Your task to perform on an android device: turn pop-ups off in chrome Image 0: 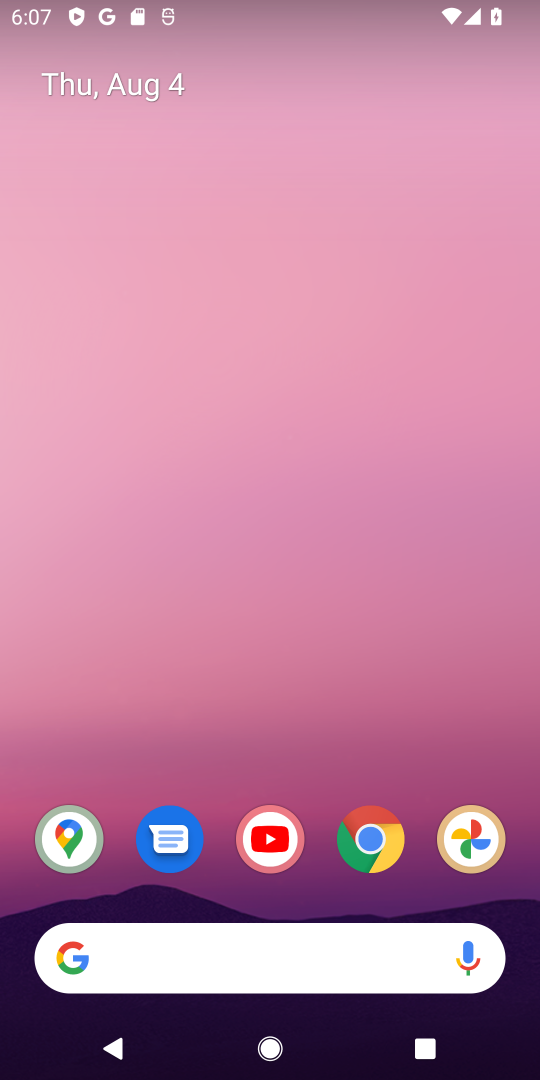
Step 0: drag from (337, 730) to (412, 98)
Your task to perform on an android device: turn pop-ups off in chrome Image 1: 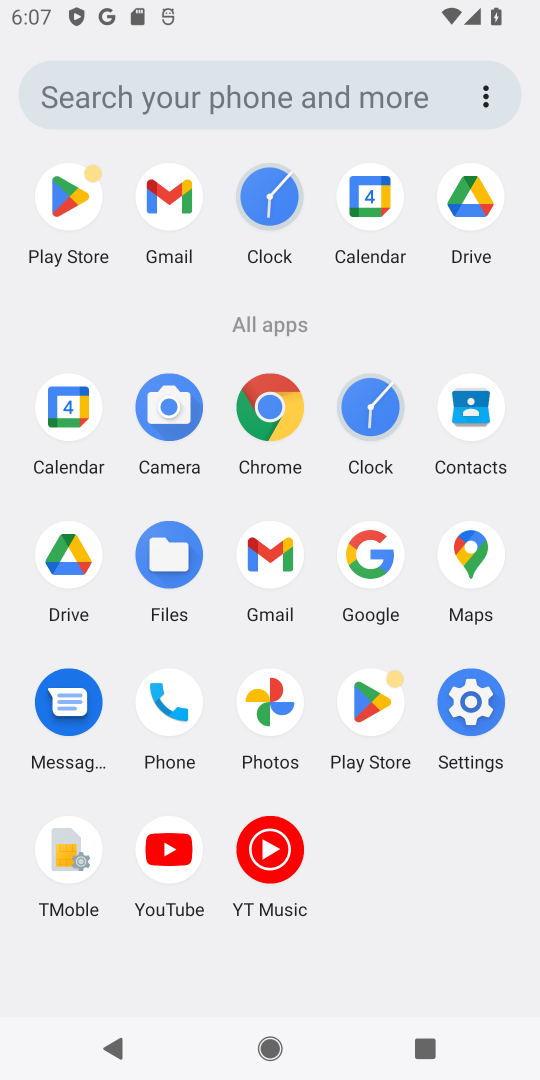
Step 1: click (261, 395)
Your task to perform on an android device: turn pop-ups off in chrome Image 2: 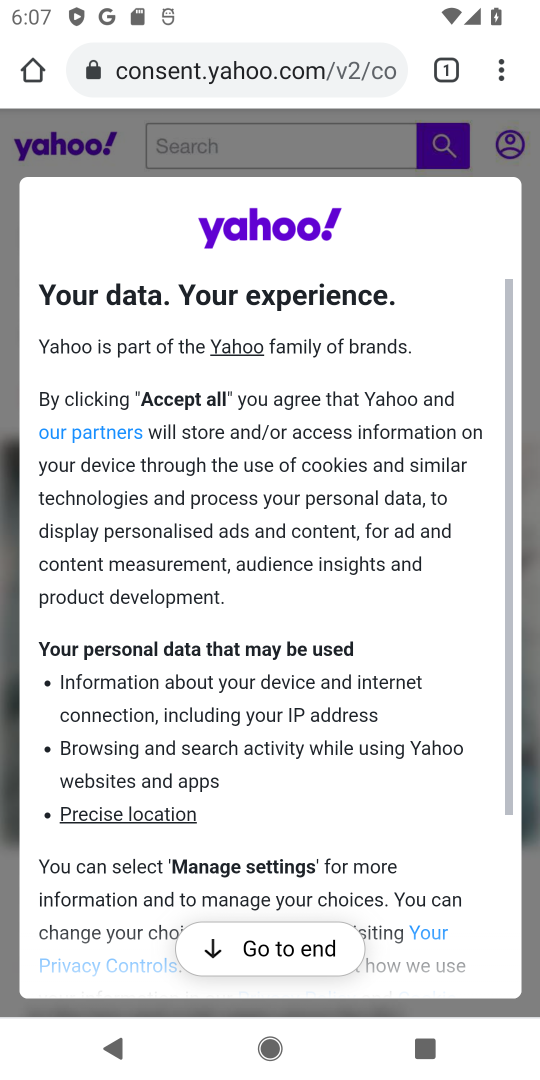
Step 2: drag from (501, 67) to (282, 905)
Your task to perform on an android device: turn pop-ups off in chrome Image 3: 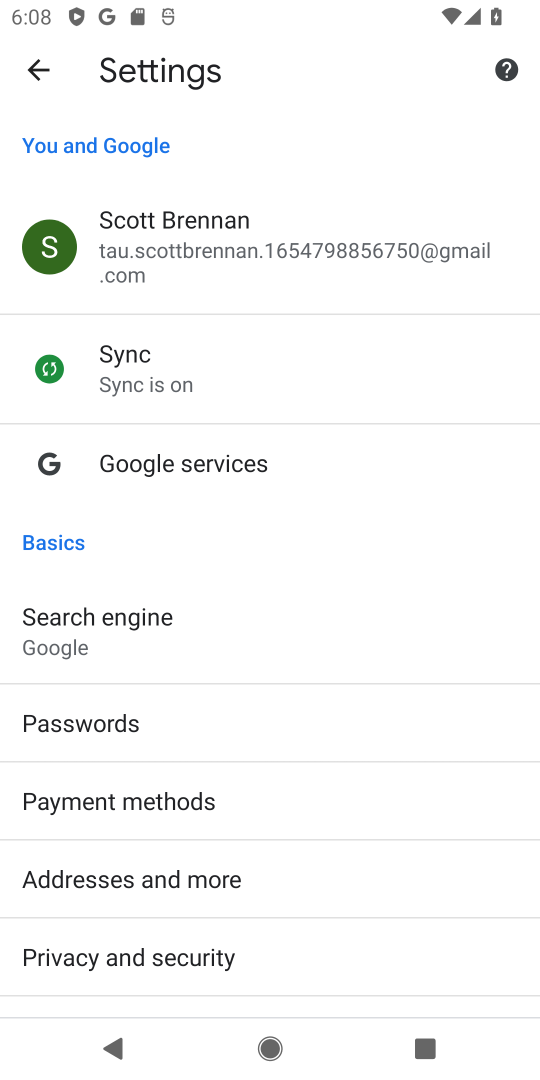
Step 3: drag from (268, 831) to (456, 147)
Your task to perform on an android device: turn pop-ups off in chrome Image 4: 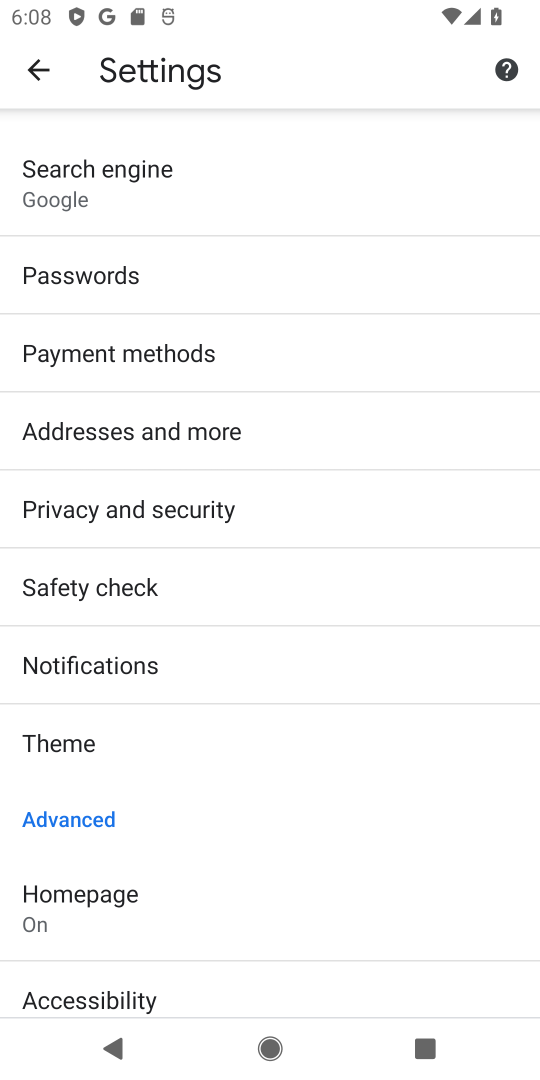
Step 4: drag from (300, 886) to (397, 321)
Your task to perform on an android device: turn pop-ups off in chrome Image 5: 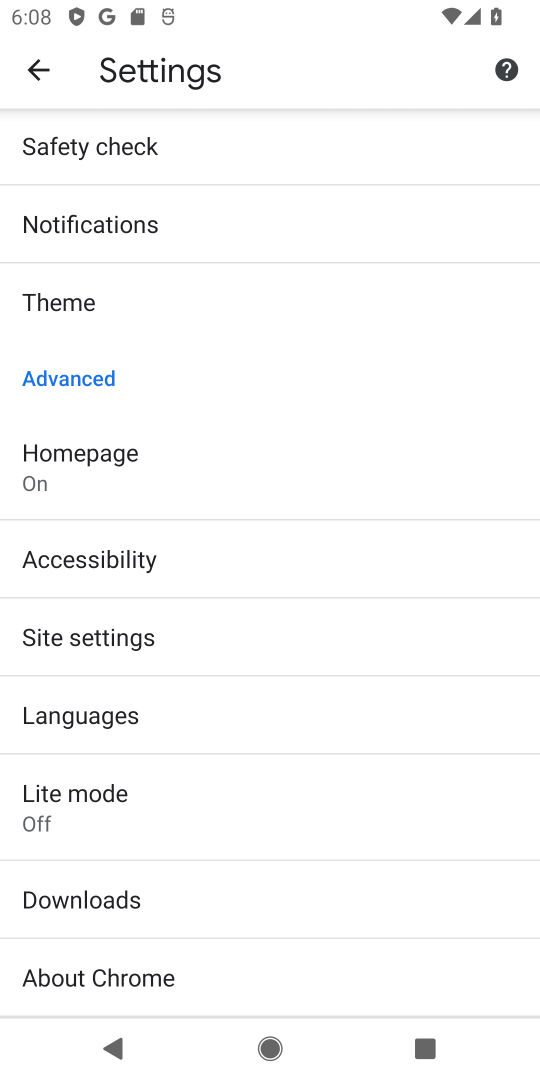
Step 5: click (151, 654)
Your task to perform on an android device: turn pop-ups off in chrome Image 6: 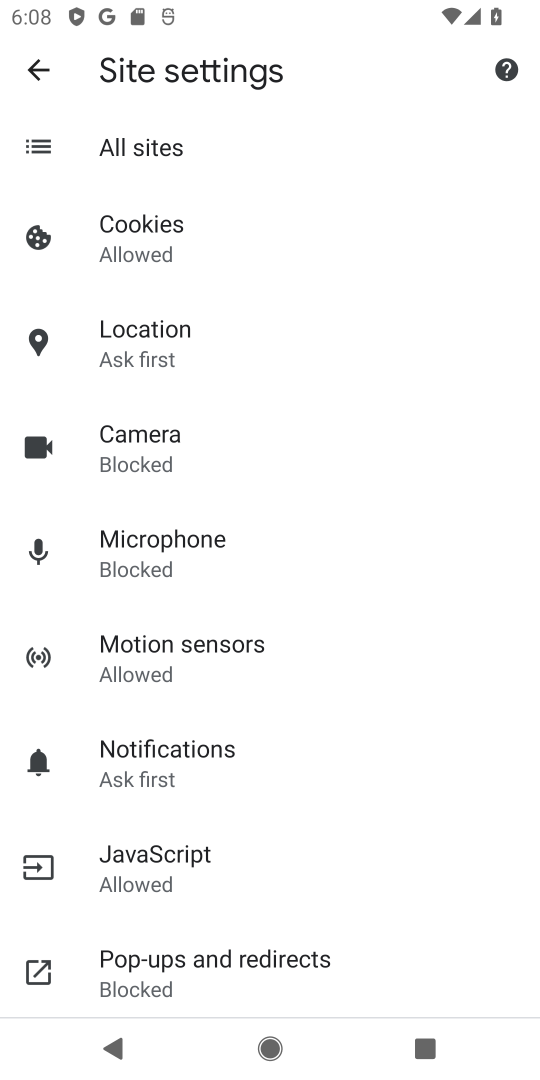
Step 6: click (179, 969)
Your task to perform on an android device: turn pop-ups off in chrome Image 7: 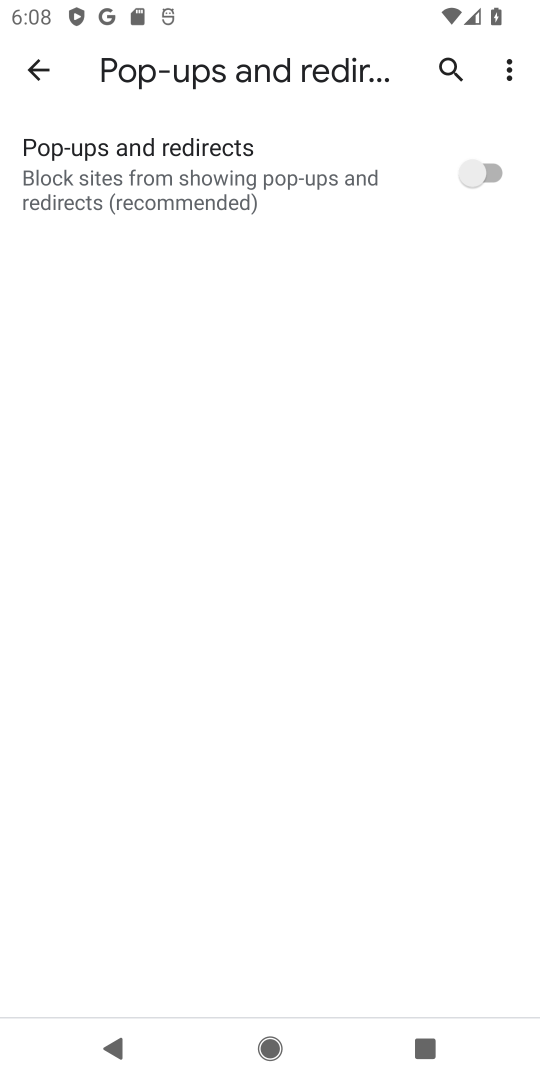
Step 7: task complete